Your task to perform on an android device: Open calendar and show me the fourth week of next month Image 0: 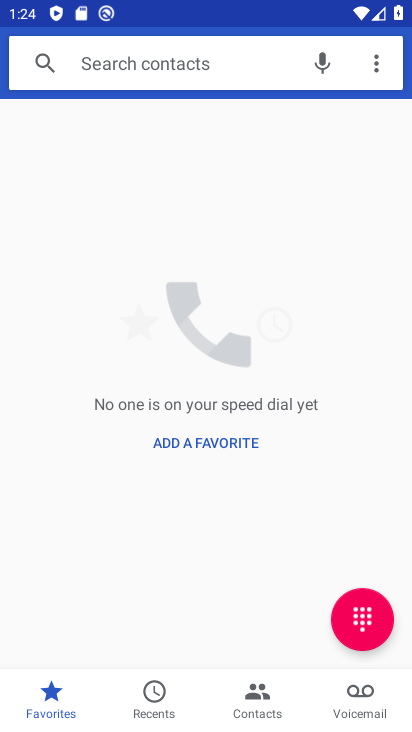
Step 0: press home button
Your task to perform on an android device: Open calendar and show me the fourth week of next month Image 1: 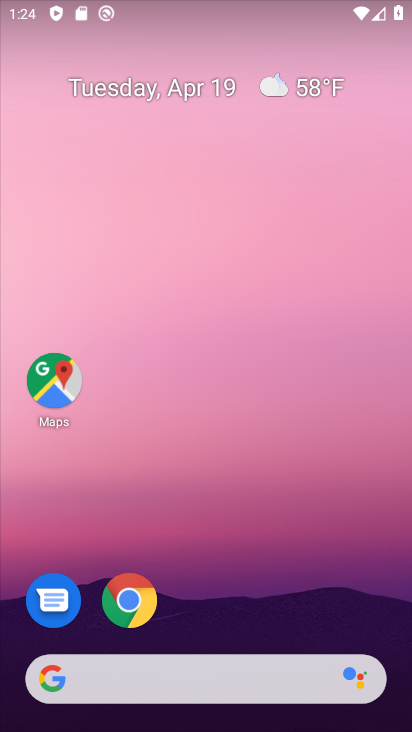
Step 1: click (169, 93)
Your task to perform on an android device: Open calendar and show me the fourth week of next month Image 2: 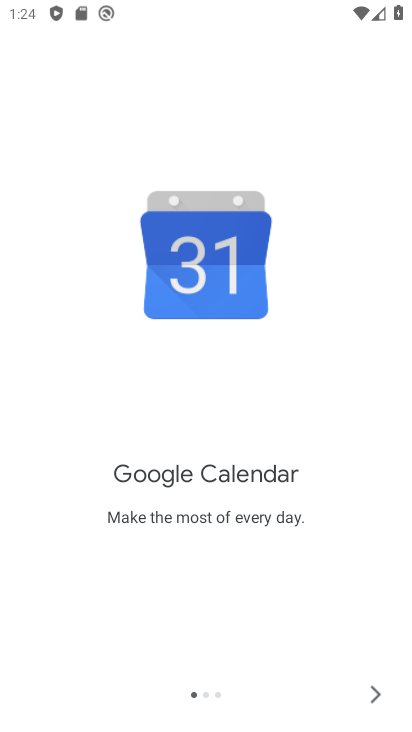
Step 2: click (380, 694)
Your task to perform on an android device: Open calendar and show me the fourth week of next month Image 3: 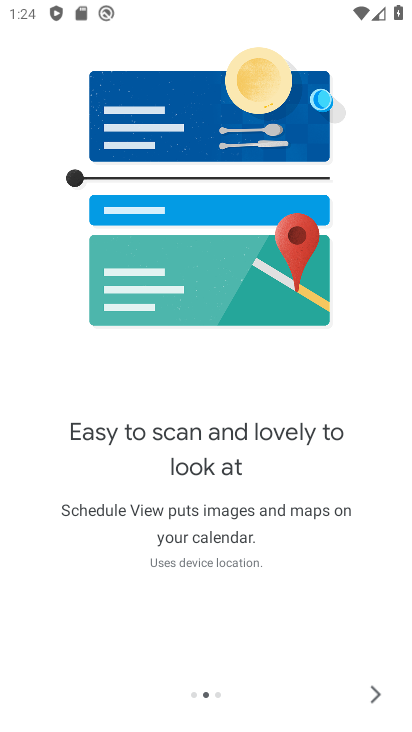
Step 3: click (380, 694)
Your task to perform on an android device: Open calendar and show me the fourth week of next month Image 4: 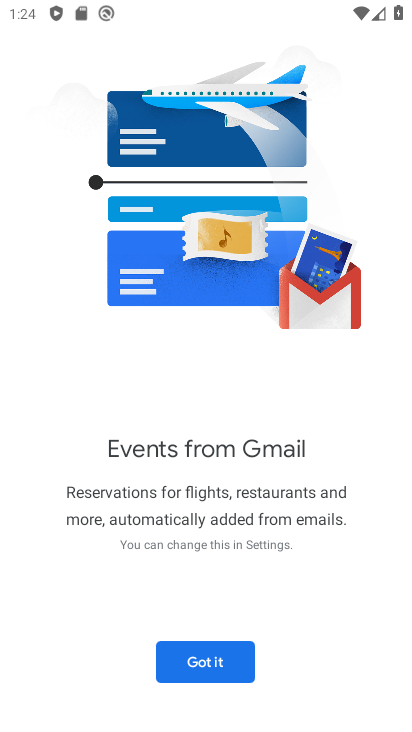
Step 4: click (182, 647)
Your task to perform on an android device: Open calendar and show me the fourth week of next month Image 5: 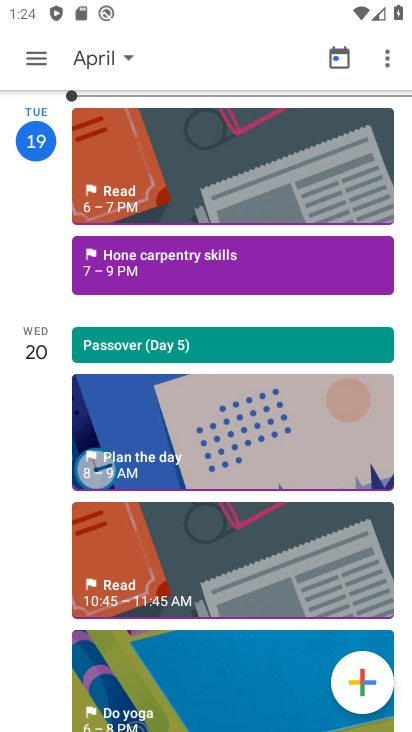
Step 5: click (39, 63)
Your task to perform on an android device: Open calendar and show me the fourth week of next month Image 6: 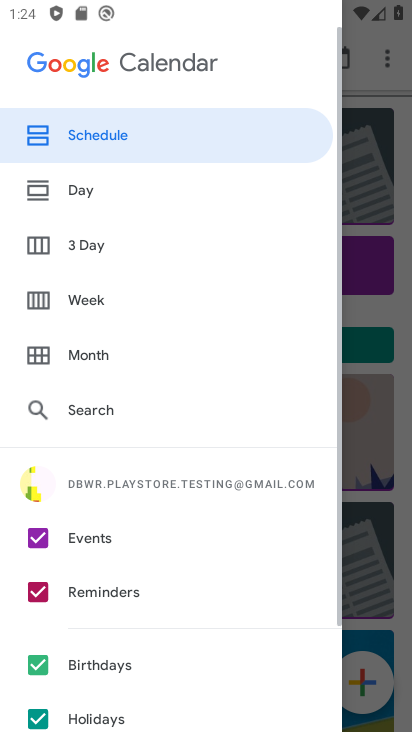
Step 6: click (88, 353)
Your task to perform on an android device: Open calendar and show me the fourth week of next month Image 7: 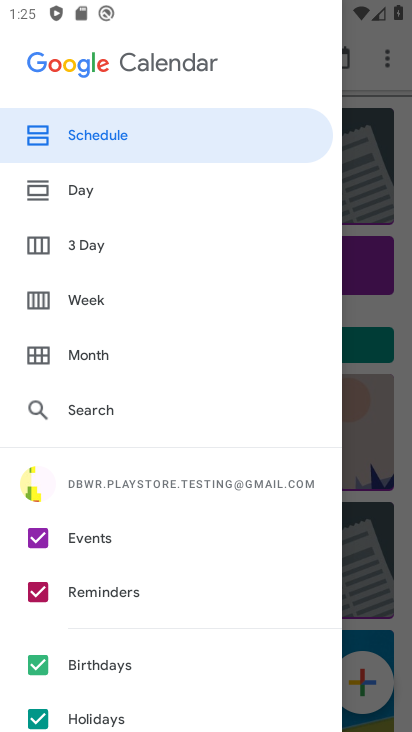
Step 7: click (86, 348)
Your task to perform on an android device: Open calendar and show me the fourth week of next month Image 8: 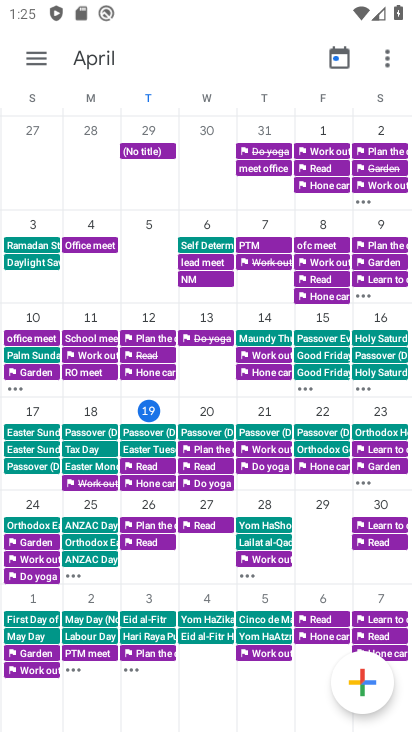
Step 8: task complete